Your task to perform on an android device: stop showing notifications on the lock screen Image 0: 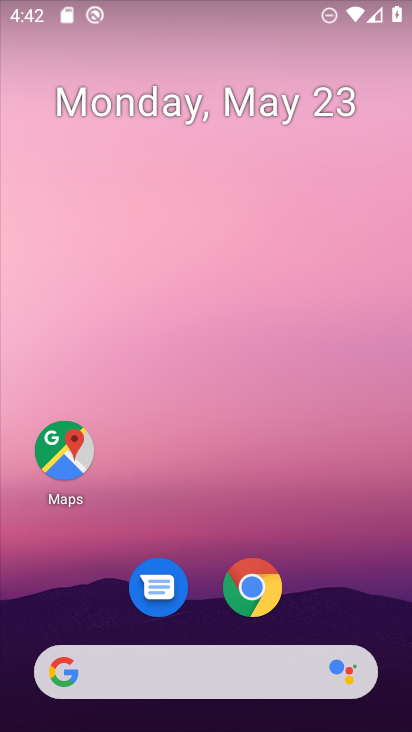
Step 0: drag from (198, 586) to (186, 95)
Your task to perform on an android device: stop showing notifications on the lock screen Image 1: 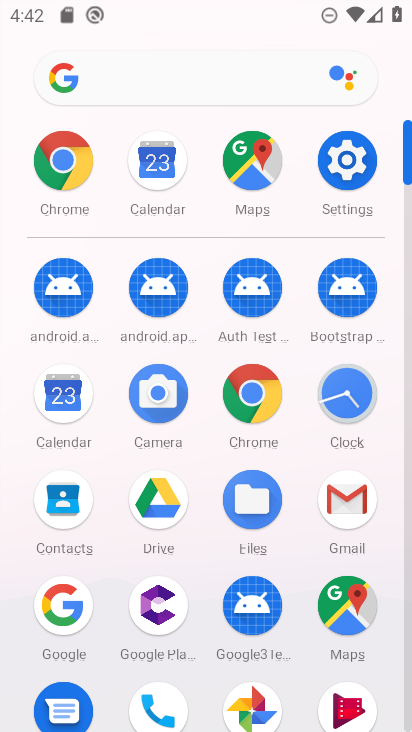
Step 1: click (354, 165)
Your task to perform on an android device: stop showing notifications on the lock screen Image 2: 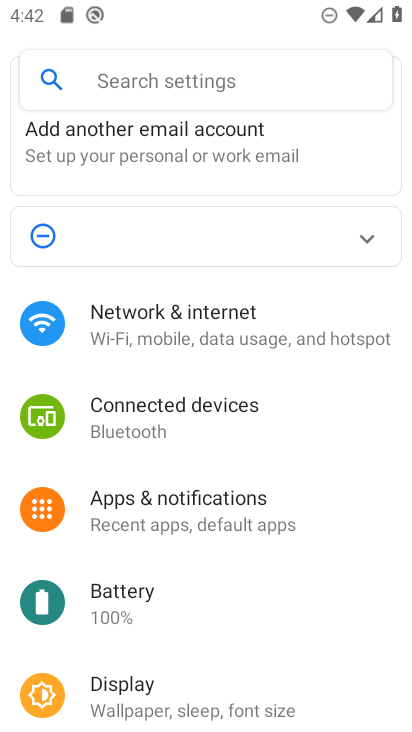
Step 2: click (173, 501)
Your task to perform on an android device: stop showing notifications on the lock screen Image 3: 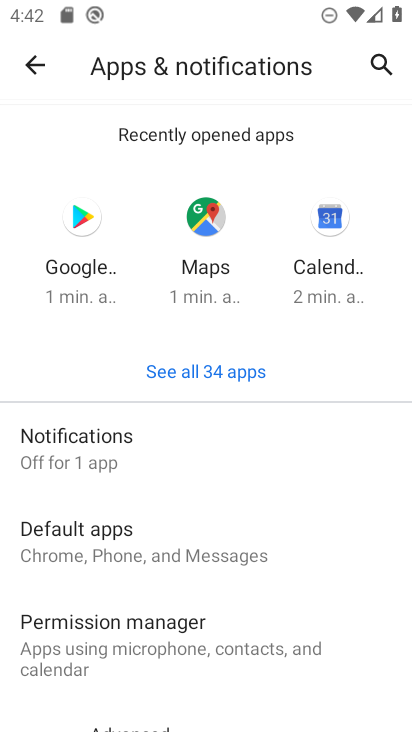
Step 3: drag from (139, 576) to (145, 459)
Your task to perform on an android device: stop showing notifications on the lock screen Image 4: 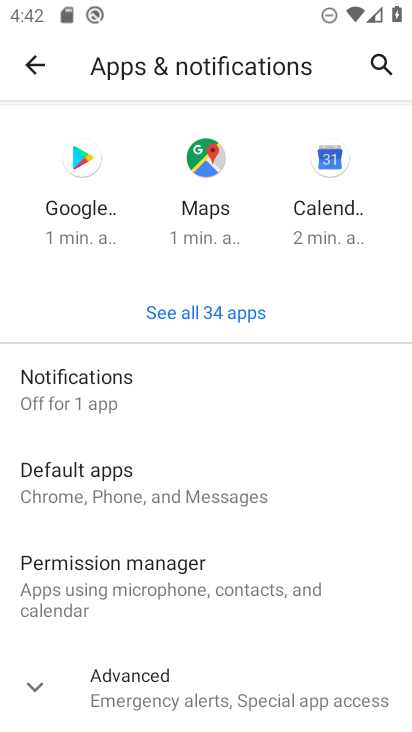
Step 4: click (109, 394)
Your task to perform on an android device: stop showing notifications on the lock screen Image 5: 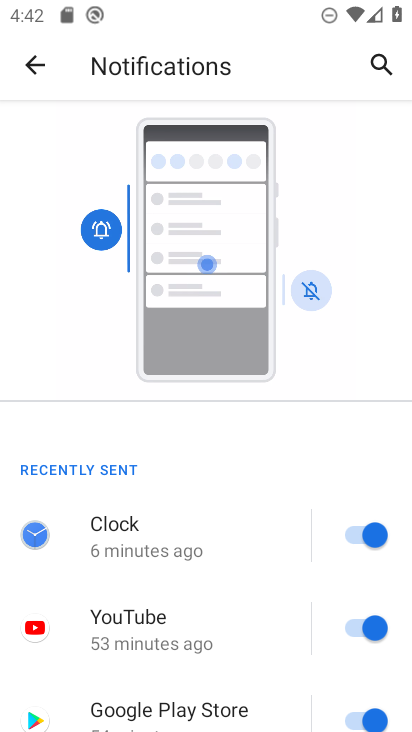
Step 5: click (155, 192)
Your task to perform on an android device: stop showing notifications on the lock screen Image 6: 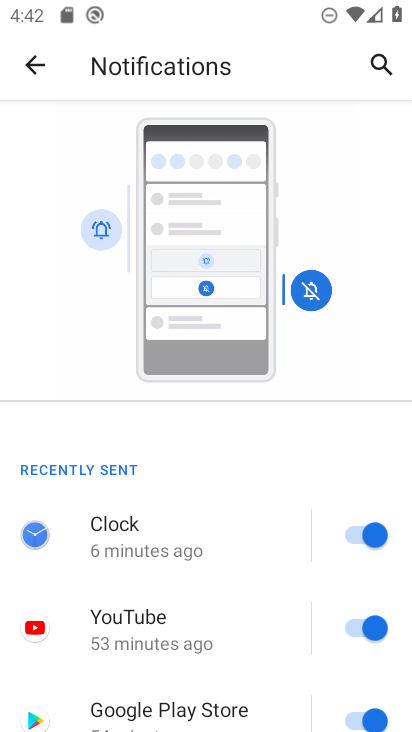
Step 6: drag from (167, 586) to (207, 222)
Your task to perform on an android device: stop showing notifications on the lock screen Image 7: 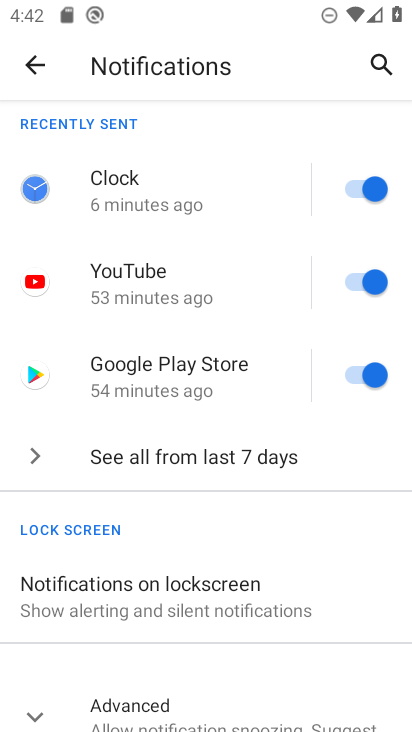
Step 7: click (187, 605)
Your task to perform on an android device: stop showing notifications on the lock screen Image 8: 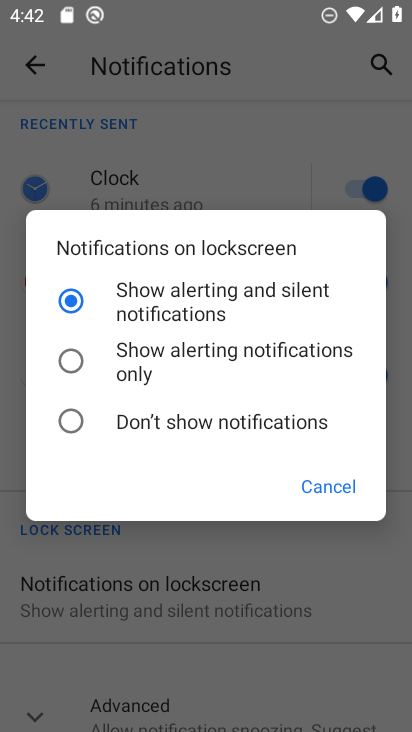
Step 8: click (137, 410)
Your task to perform on an android device: stop showing notifications on the lock screen Image 9: 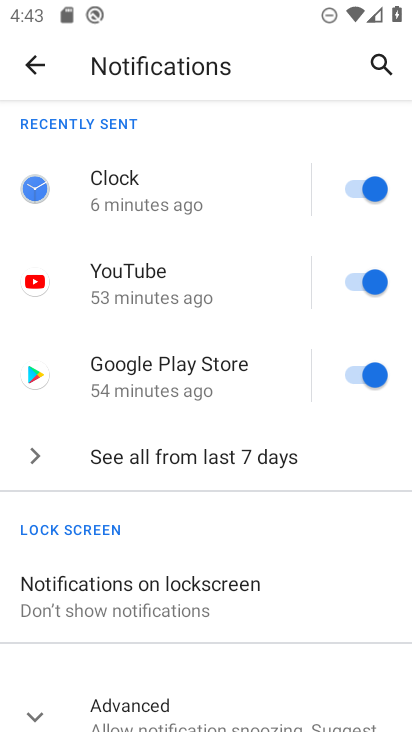
Step 9: task complete